Your task to perform on an android device: toggle translation in the chrome app Image 0: 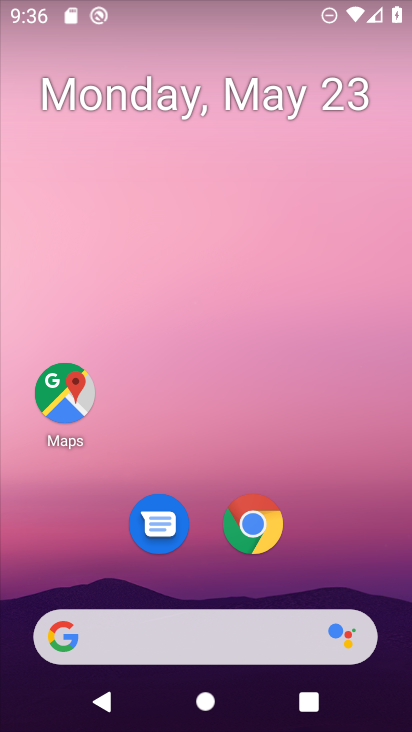
Step 0: click (262, 535)
Your task to perform on an android device: toggle translation in the chrome app Image 1: 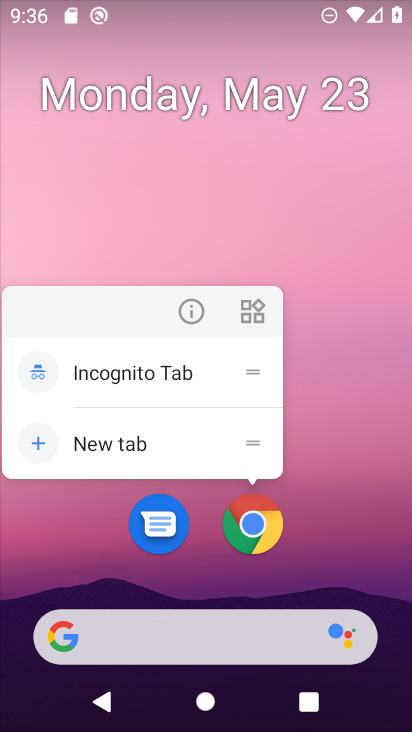
Step 1: click (262, 526)
Your task to perform on an android device: toggle translation in the chrome app Image 2: 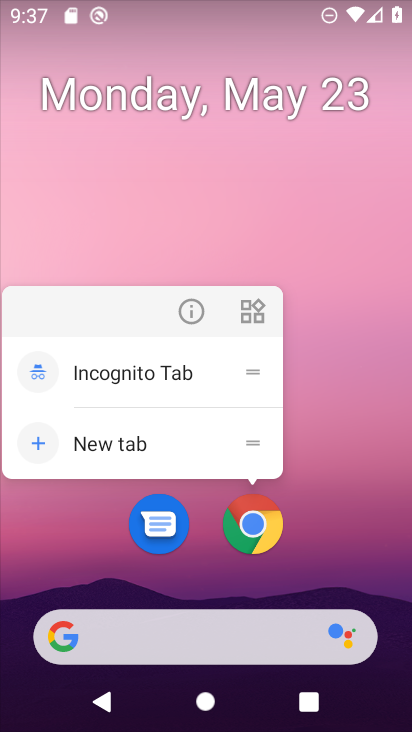
Step 2: click (262, 527)
Your task to perform on an android device: toggle translation in the chrome app Image 3: 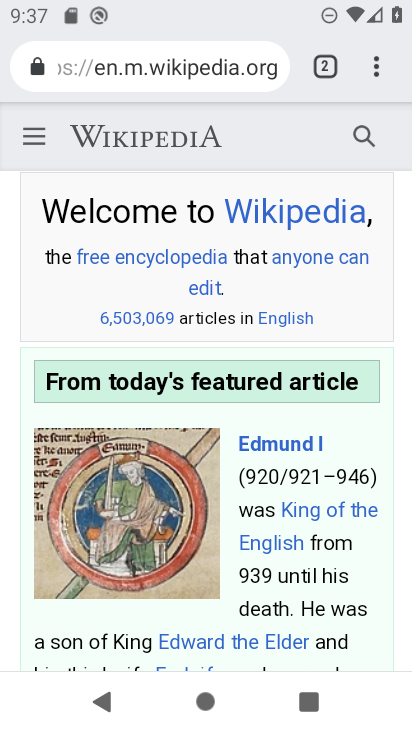
Step 3: click (373, 68)
Your task to perform on an android device: toggle translation in the chrome app Image 4: 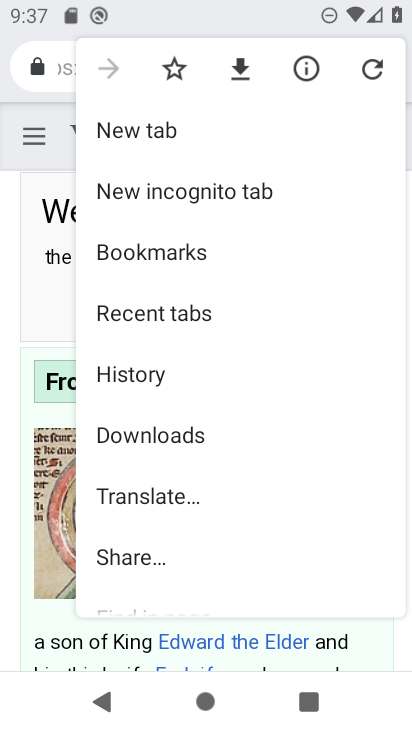
Step 4: drag from (250, 479) to (334, 72)
Your task to perform on an android device: toggle translation in the chrome app Image 5: 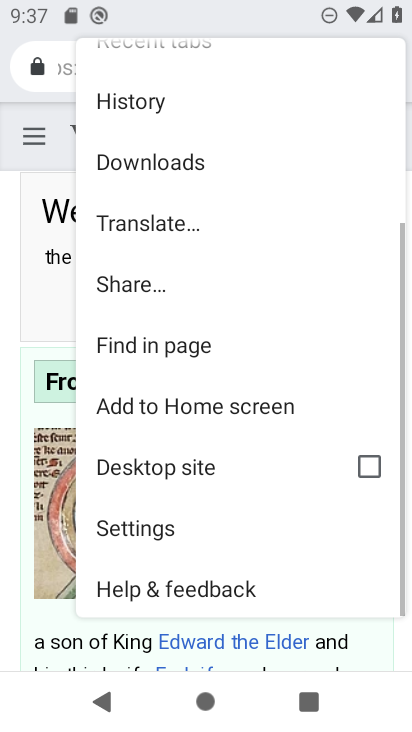
Step 5: click (165, 526)
Your task to perform on an android device: toggle translation in the chrome app Image 6: 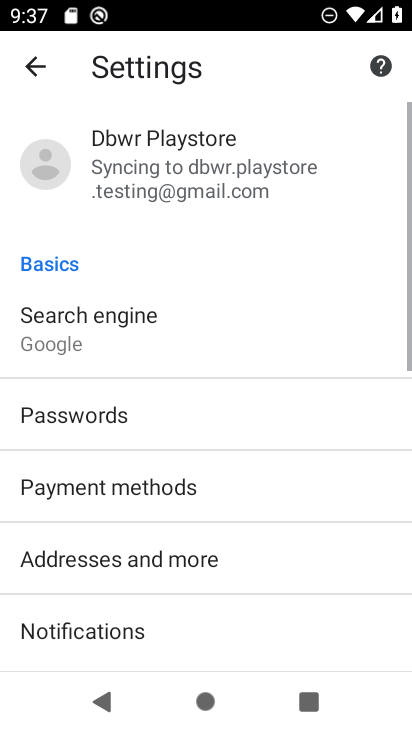
Step 6: drag from (201, 581) to (238, 190)
Your task to perform on an android device: toggle translation in the chrome app Image 7: 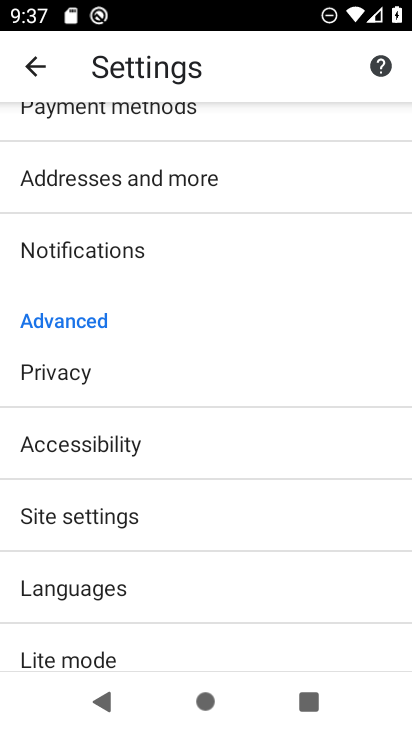
Step 7: click (224, 580)
Your task to perform on an android device: toggle translation in the chrome app Image 8: 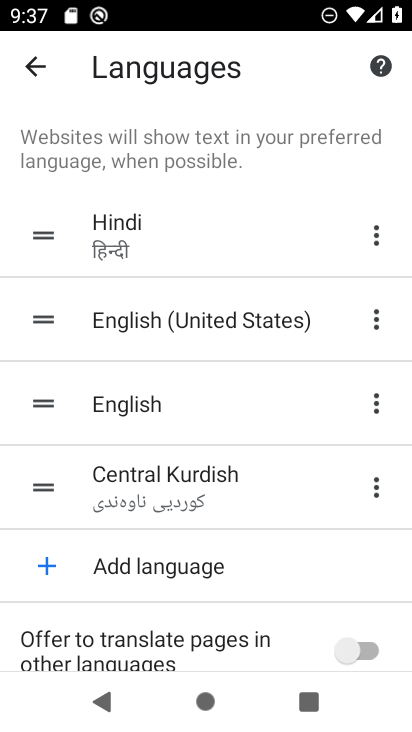
Step 8: click (364, 641)
Your task to perform on an android device: toggle translation in the chrome app Image 9: 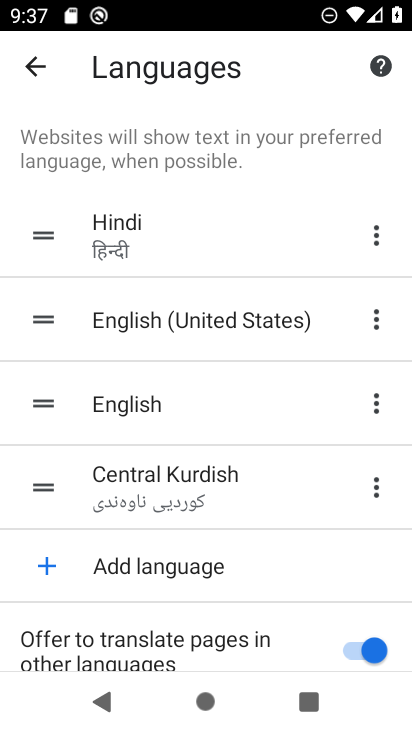
Step 9: task complete